Your task to perform on an android device: change the clock display to digital Image 0: 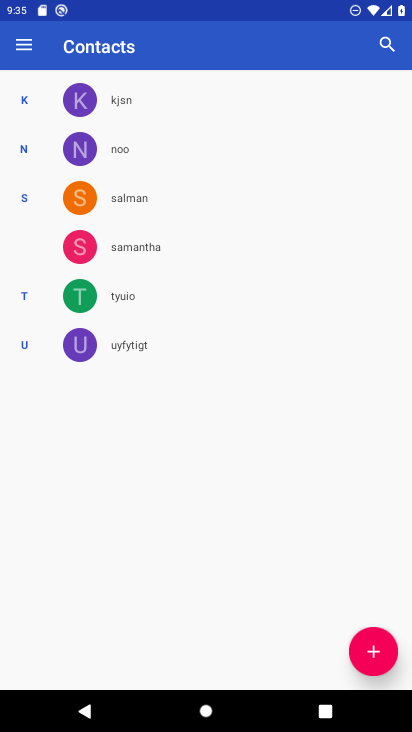
Step 0: press home button
Your task to perform on an android device: change the clock display to digital Image 1: 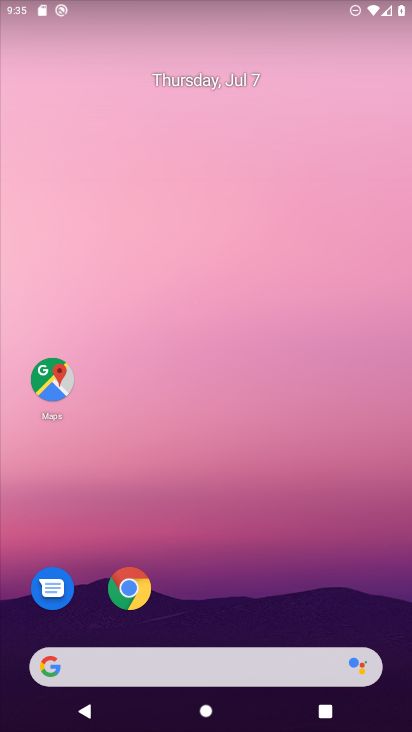
Step 1: drag from (204, 615) to (201, 68)
Your task to perform on an android device: change the clock display to digital Image 2: 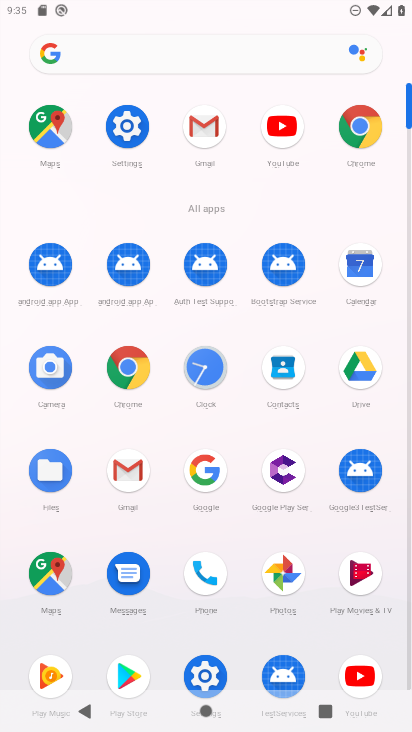
Step 2: click (195, 367)
Your task to perform on an android device: change the clock display to digital Image 3: 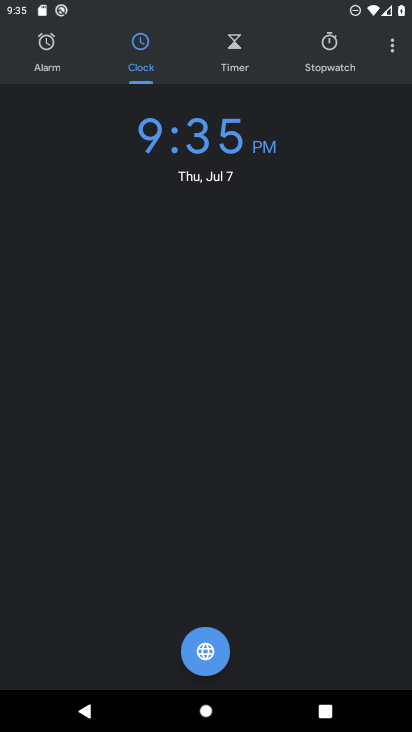
Step 3: click (392, 64)
Your task to perform on an android device: change the clock display to digital Image 4: 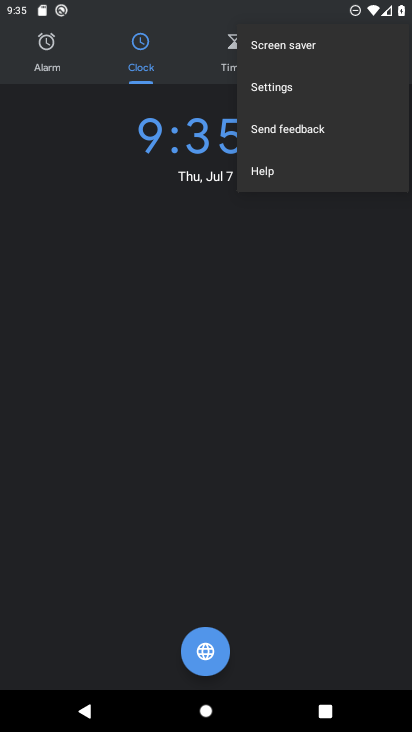
Step 4: click (314, 86)
Your task to perform on an android device: change the clock display to digital Image 5: 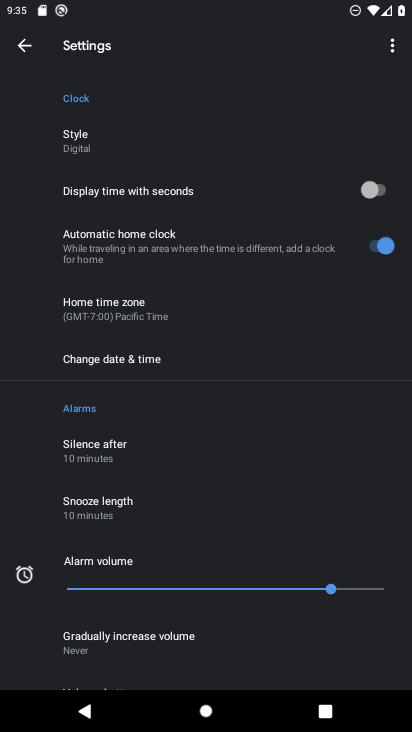
Step 5: task complete